Your task to perform on an android device: Open accessibility settings Image 0: 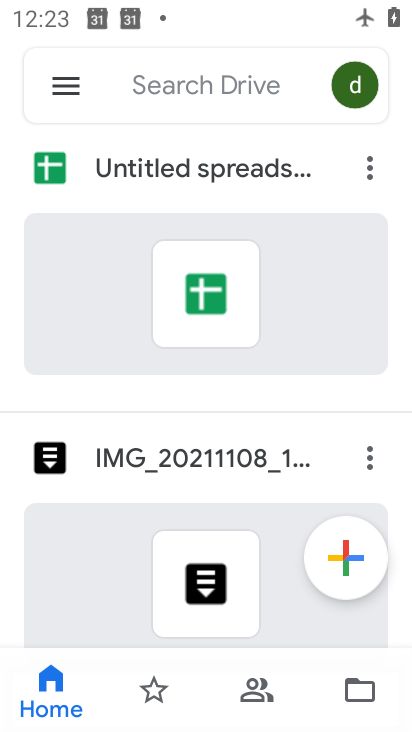
Step 0: press home button
Your task to perform on an android device: Open accessibility settings Image 1: 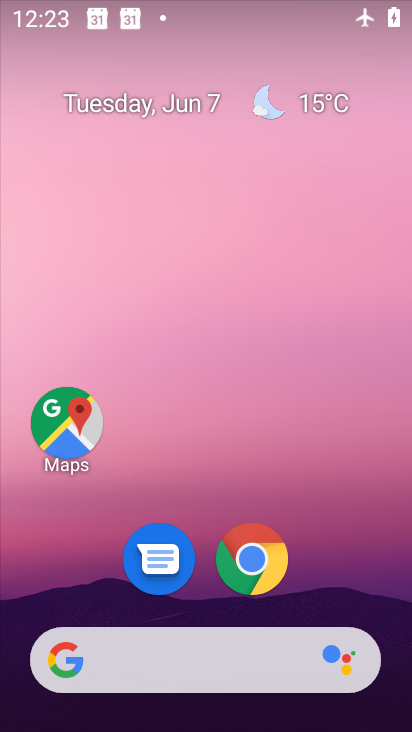
Step 1: drag from (385, 600) to (328, 258)
Your task to perform on an android device: Open accessibility settings Image 2: 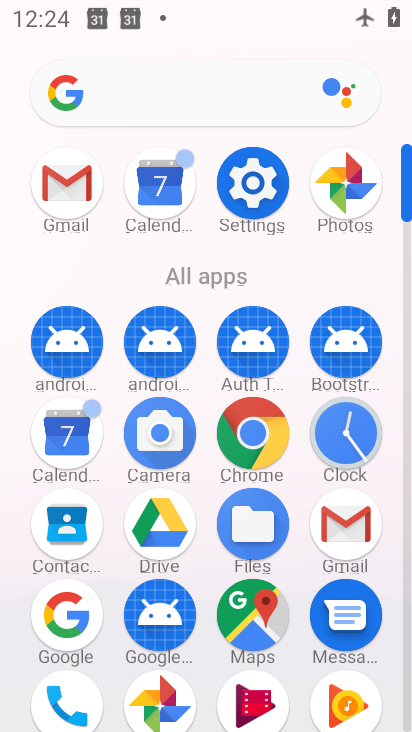
Step 2: click (408, 710)
Your task to perform on an android device: Open accessibility settings Image 3: 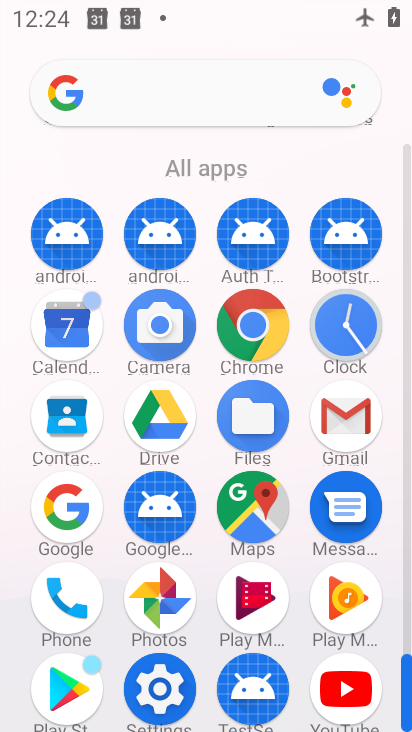
Step 3: click (158, 692)
Your task to perform on an android device: Open accessibility settings Image 4: 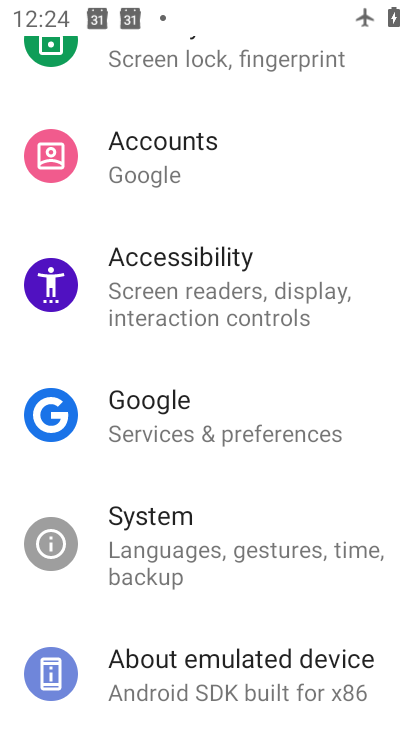
Step 4: click (173, 274)
Your task to perform on an android device: Open accessibility settings Image 5: 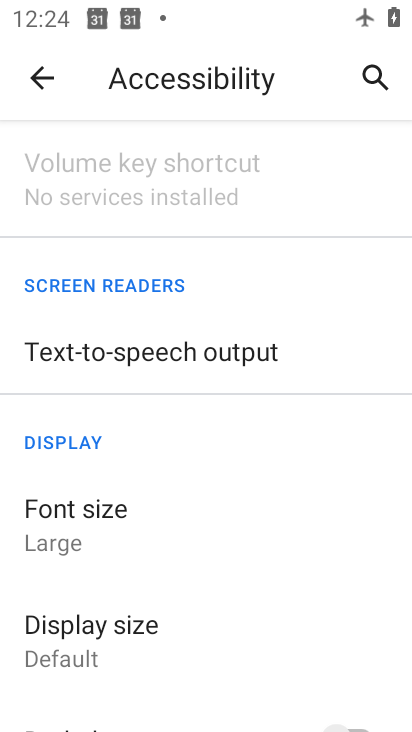
Step 5: task complete